Your task to perform on an android device: turn vacation reply on in the gmail app Image 0: 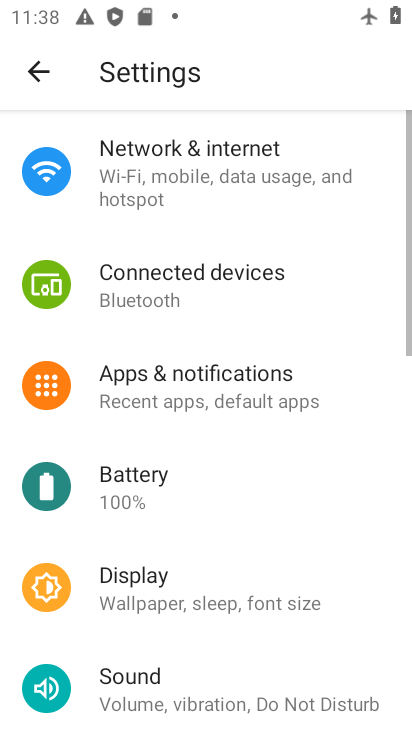
Step 0: press home button
Your task to perform on an android device: turn vacation reply on in the gmail app Image 1: 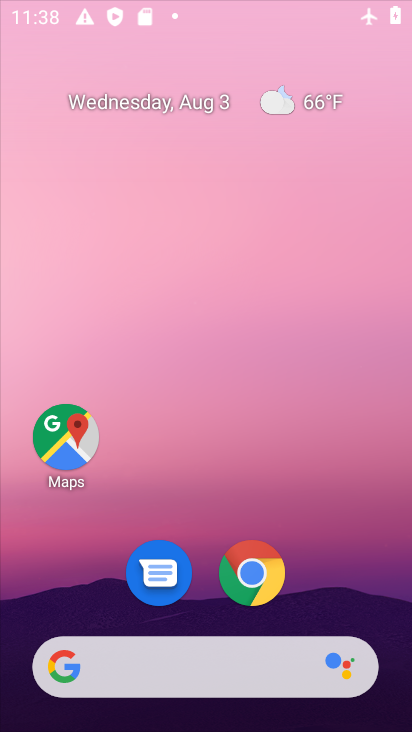
Step 1: drag from (352, 458) to (349, 72)
Your task to perform on an android device: turn vacation reply on in the gmail app Image 2: 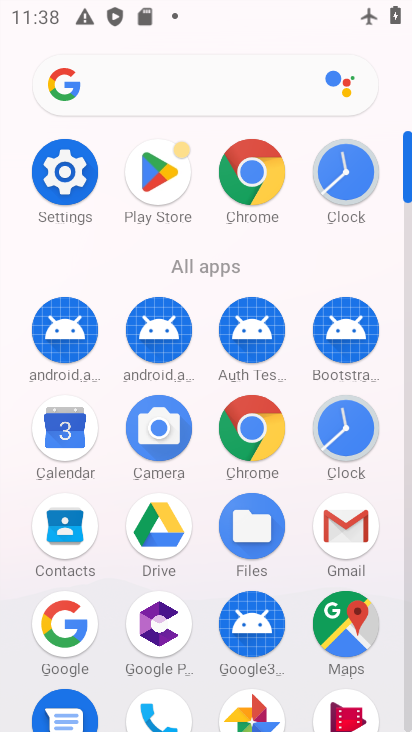
Step 2: click (353, 518)
Your task to perform on an android device: turn vacation reply on in the gmail app Image 3: 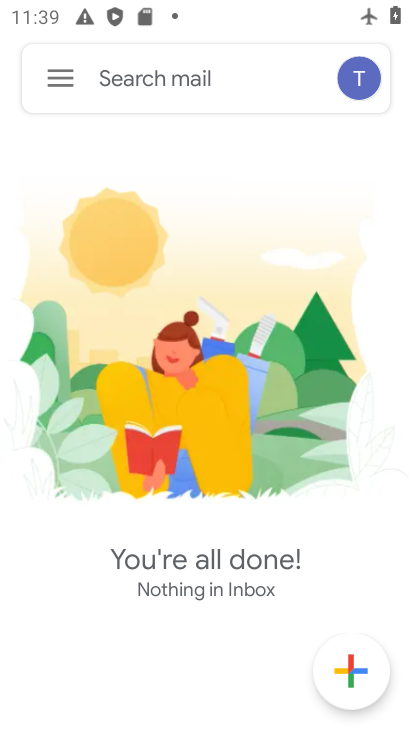
Step 3: click (54, 80)
Your task to perform on an android device: turn vacation reply on in the gmail app Image 4: 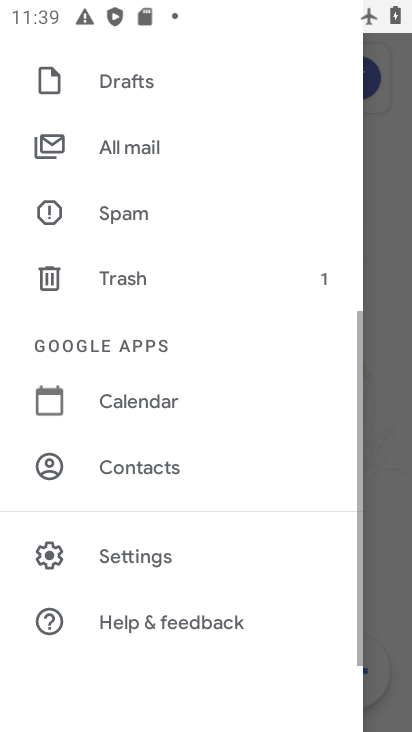
Step 4: click (144, 555)
Your task to perform on an android device: turn vacation reply on in the gmail app Image 5: 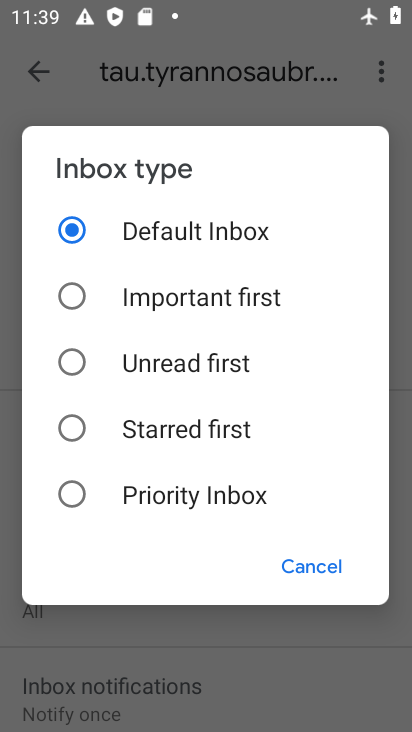
Step 5: click (329, 586)
Your task to perform on an android device: turn vacation reply on in the gmail app Image 6: 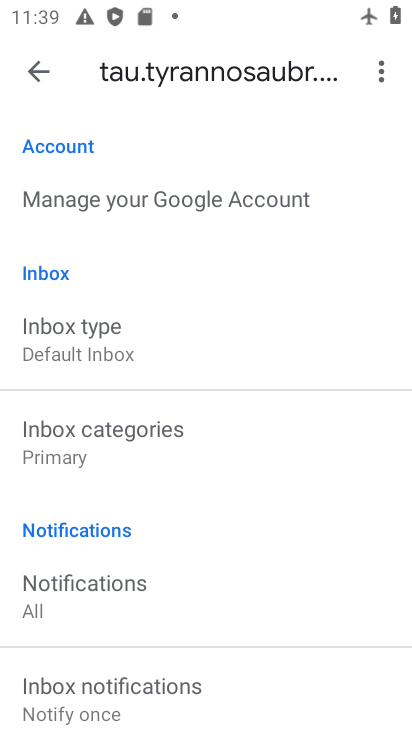
Step 6: drag from (247, 548) to (290, 162)
Your task to perform on an android device: turn vacation reply on in the gmail app Image 7: 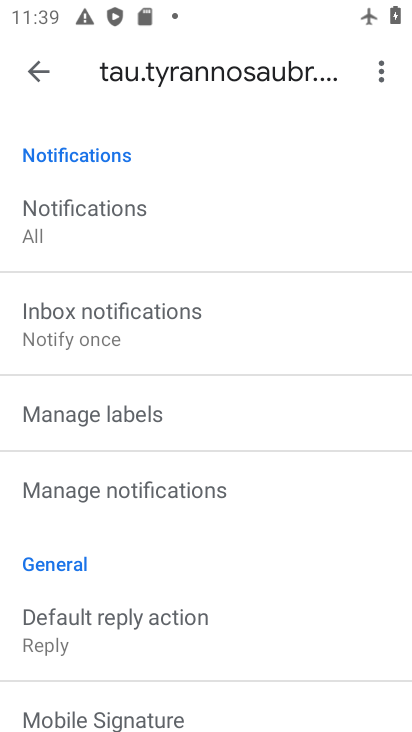
Step 7: drag from (269, 213) to (245, 517)
Your task to perform on an android device: turn vacation reply on in the gmail app Image 8: 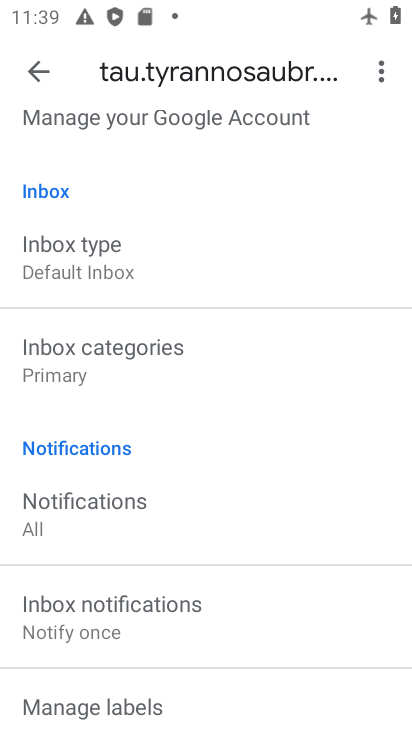
Step 8: drag from (240, 514) to (260, 152)
Your task to perform on an android device: turn vacation reply on in the gmail app Image 9: 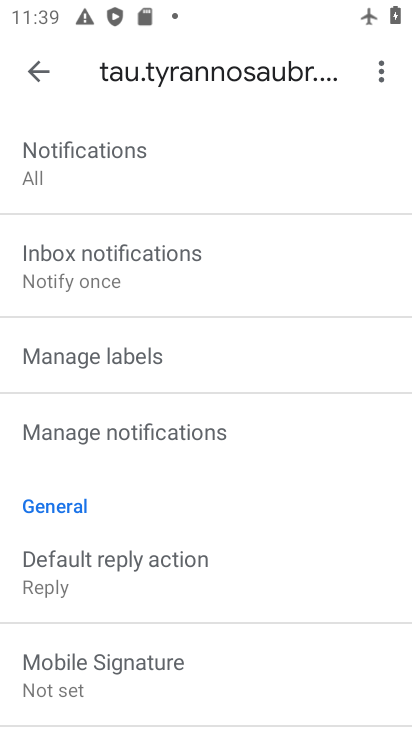
Step 9: drag from (175, 551) to (249, 250)
Your task to perform on an android device: turn vacation reply on in the gmail app Image 10: 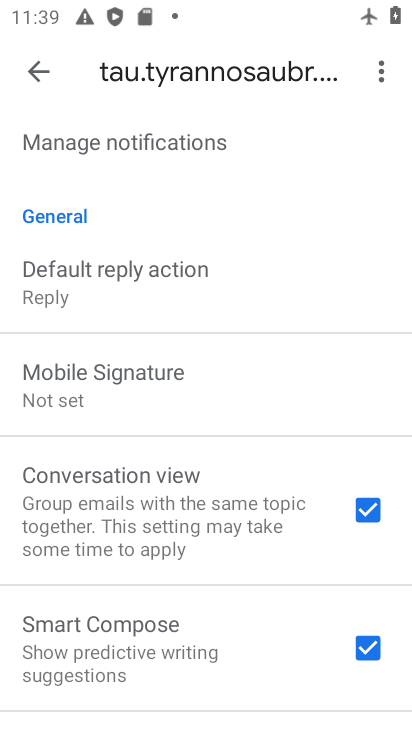
Step 10: drag from (205, 626) to (273, 273)
Your task to perform on an android device: turn vacation reply on in the gmail app Image 11: 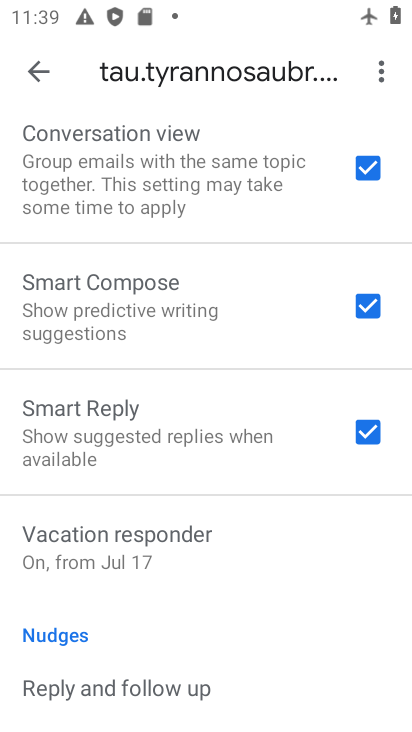
Step 11: click (171, 539)
Your task to perform on an android device: turn vacation reply on in the gmail app Image 12: 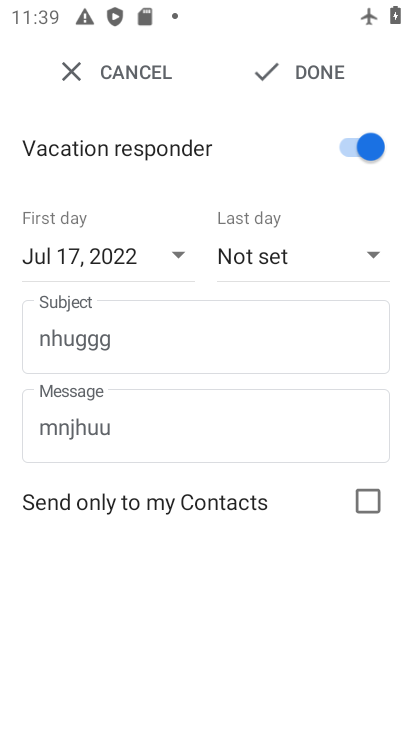
Step 12: task complete